Your task to perform on an android device: Open location settings Image 0: 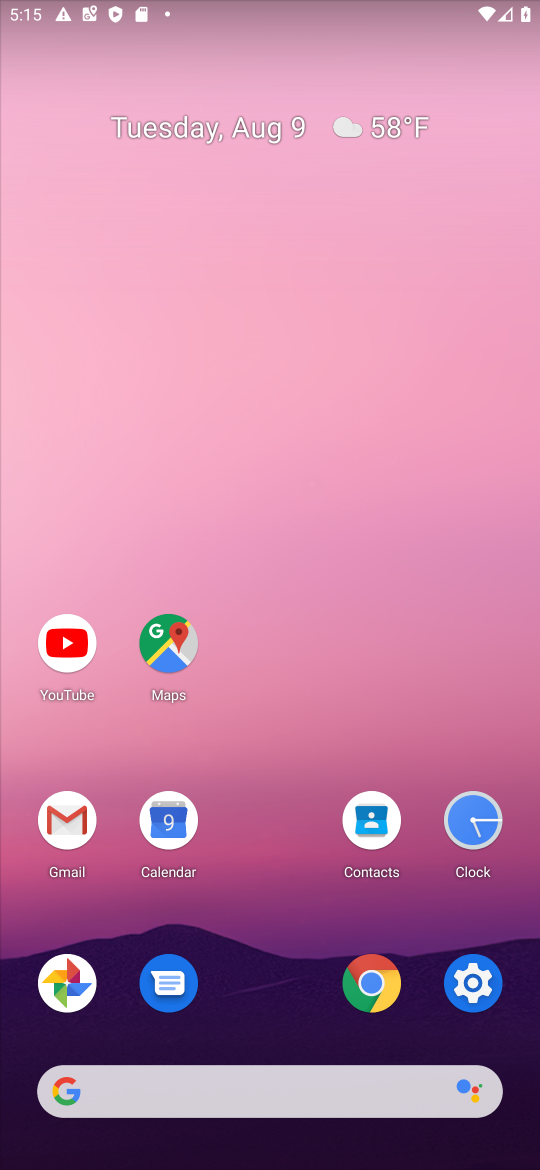
Step 0: click (471, 981)
Your task to perform on an android device: Open location settings Image 1: 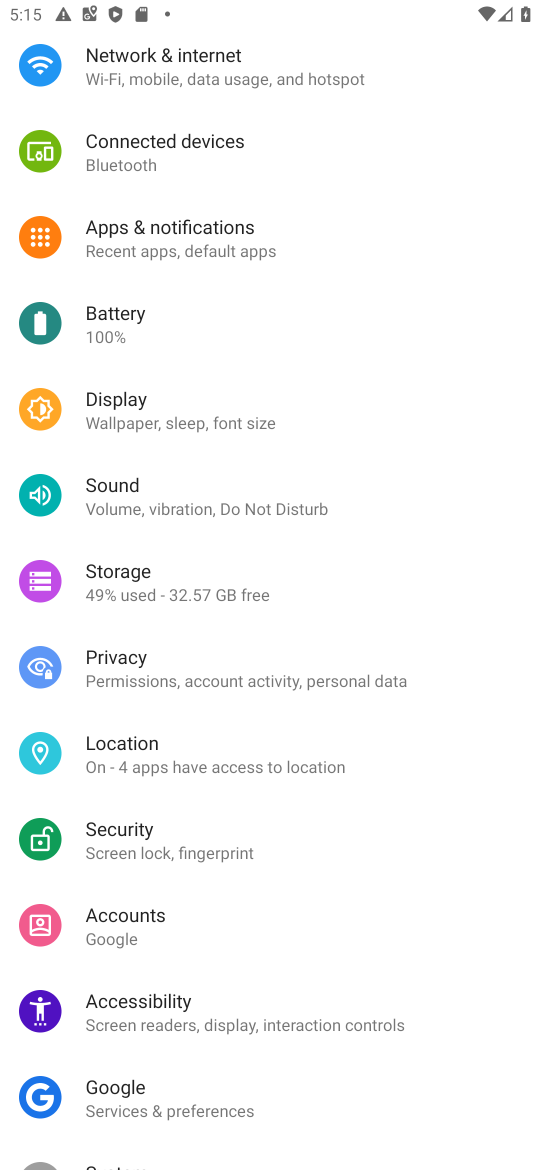
Step 1: click (121, 738)
Your task to perform on an android device: Open location settings Image 2: 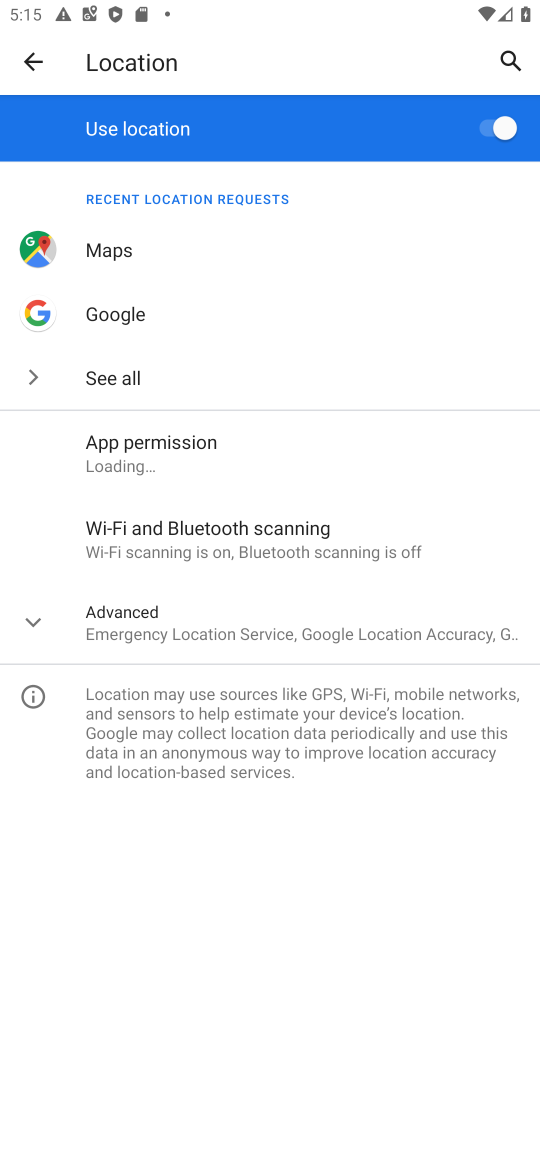
Step 2: task complete